Your task to perform on an android device: Search for seafood restaurants on Google Maps Image 0: 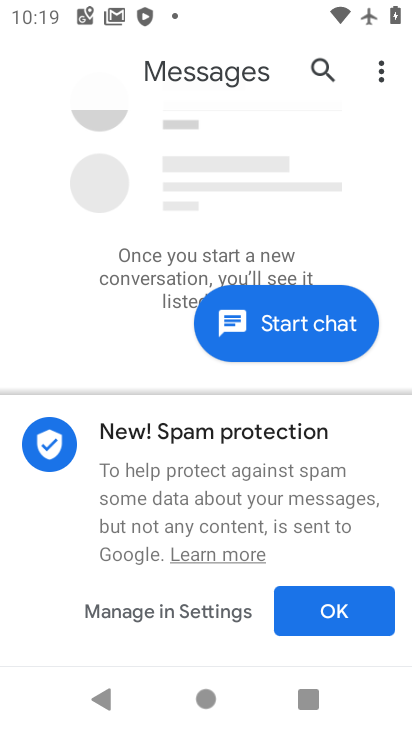
Step 0: press home button
Your task to perform on an android device: Search for seafood restaurants on Google Maps Image 1: 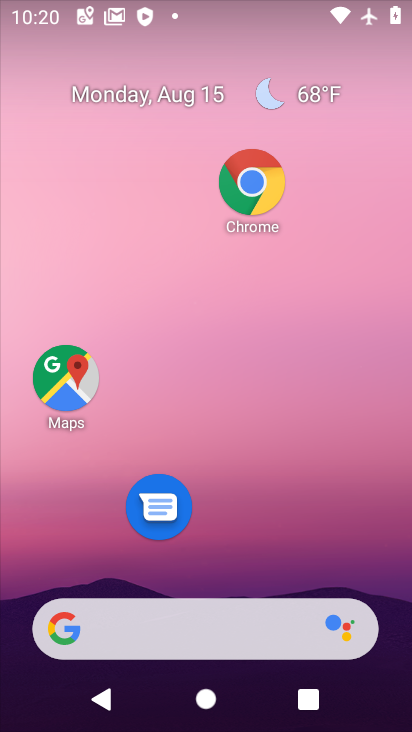
Step 1: click (62, 374)
Your task to perform on an android device: Search for seafood restaurants on Google Maps Image 2: 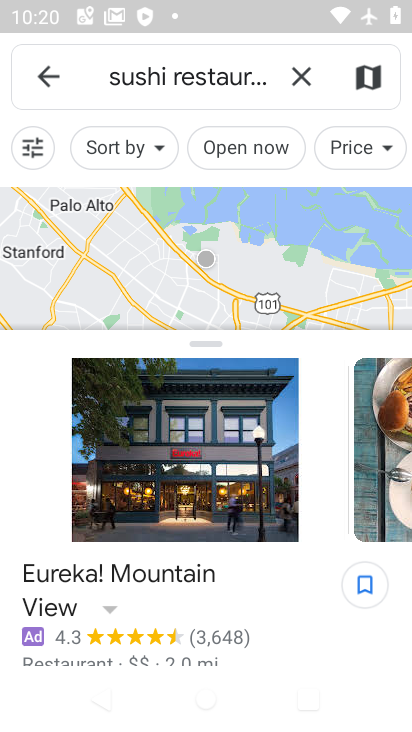
Step 2: click (295, 86)
Your task to perform on an android device: Search for seafood restaurants on Google Maps Image 3: 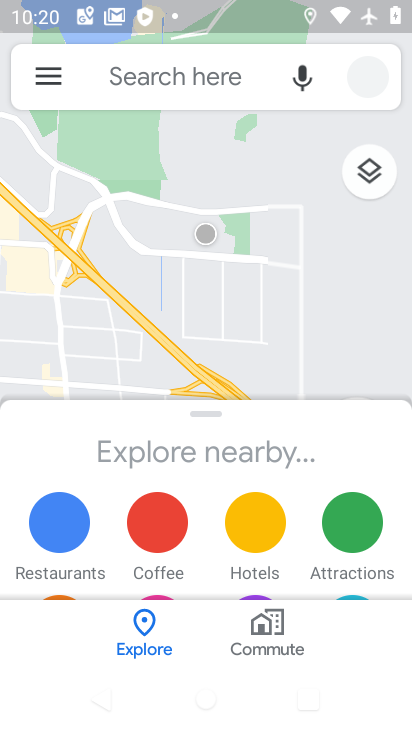
Step 3: click (201, 78)
Your task to perform on an android device: Search for seafood restaurants on Google Maps Image 4: 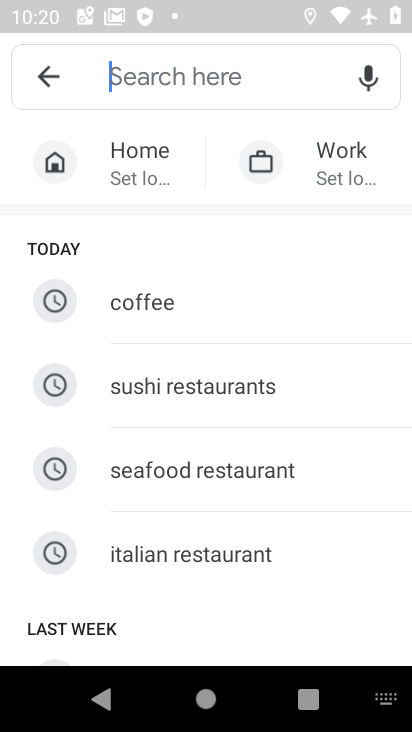
Step 4: click (199, 445)
Your task to perform on an android device: Search for seafood restaurants on Google Maps Image 5: 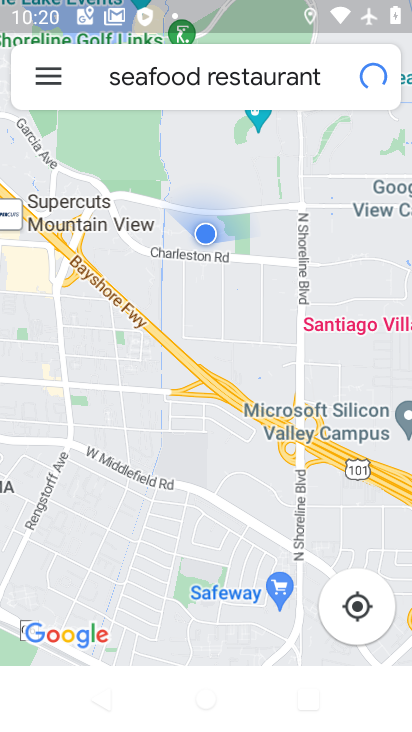
Step 5: task complete